Your task to perform on an android device: Open location settings Image 0: 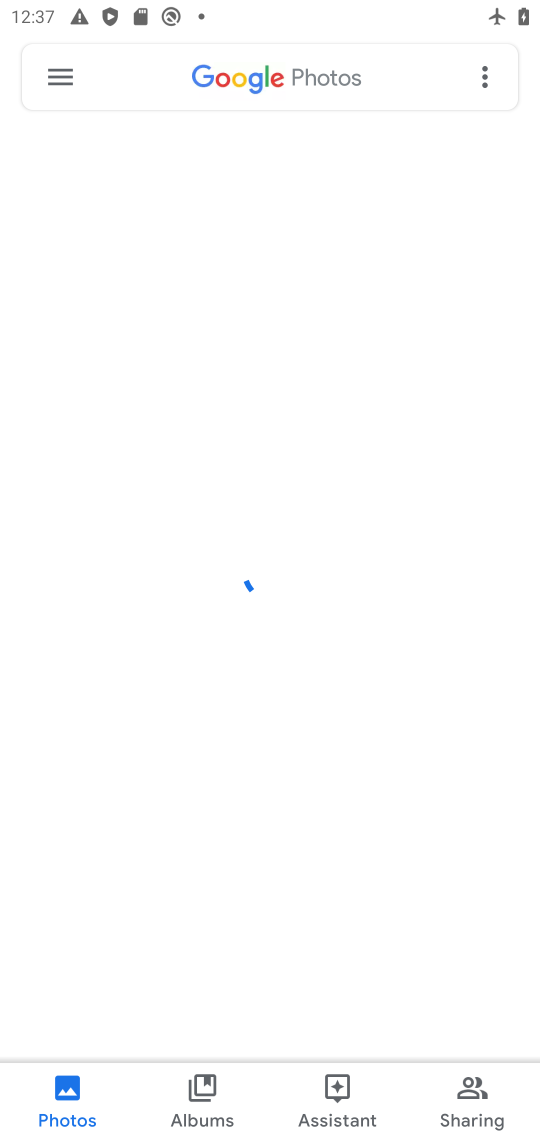
Step 0: press home button
Your task to perform on an android device: Open location settings Image 1: 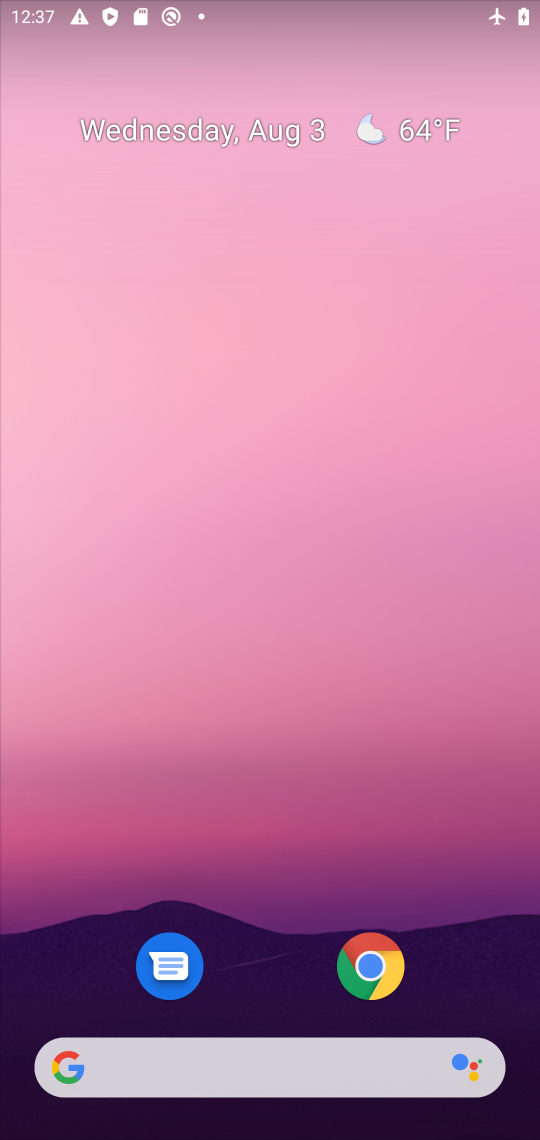
Step 1: drag from (266, 935) to (232, 263)
Your task to perform on an android device: Open location settings Image 2: 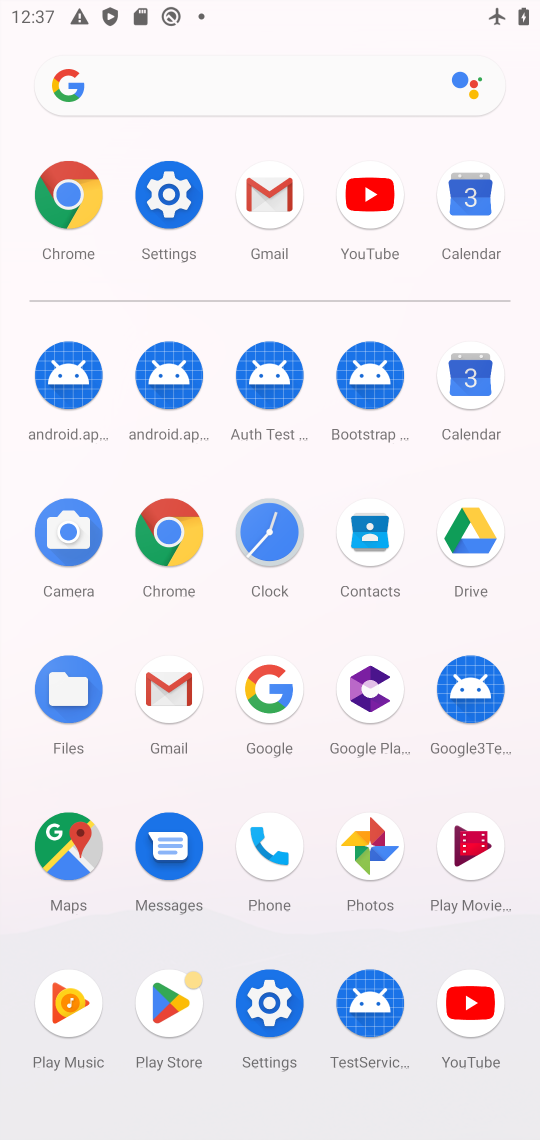
Step 2: click (143, 208)
Your task to perform on an android device: Open location settings Image 3: 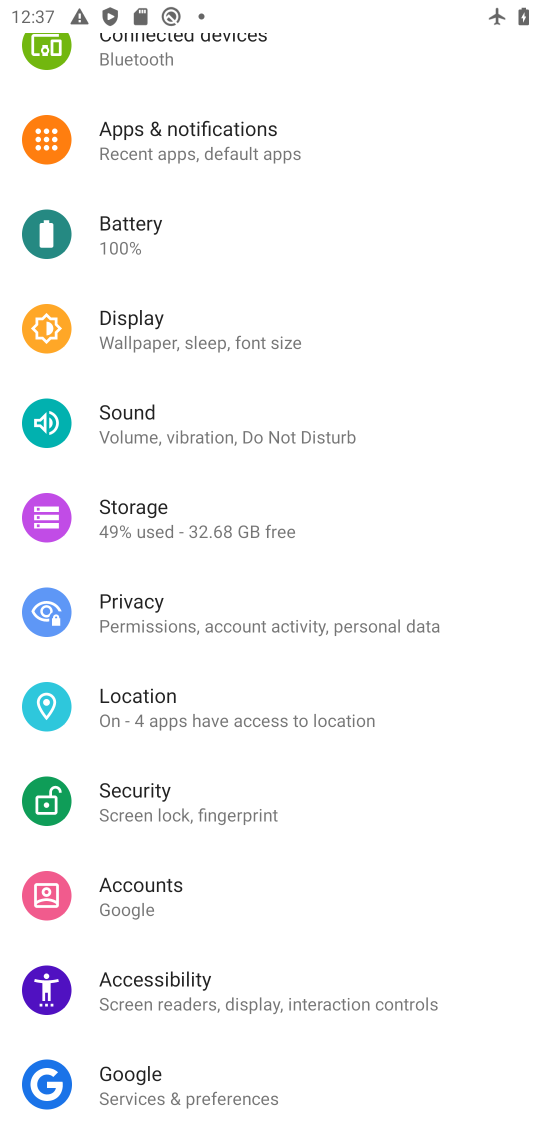
Step 3: click (180, 710)
Your task to perform on an android device: Open location settings Image 4: 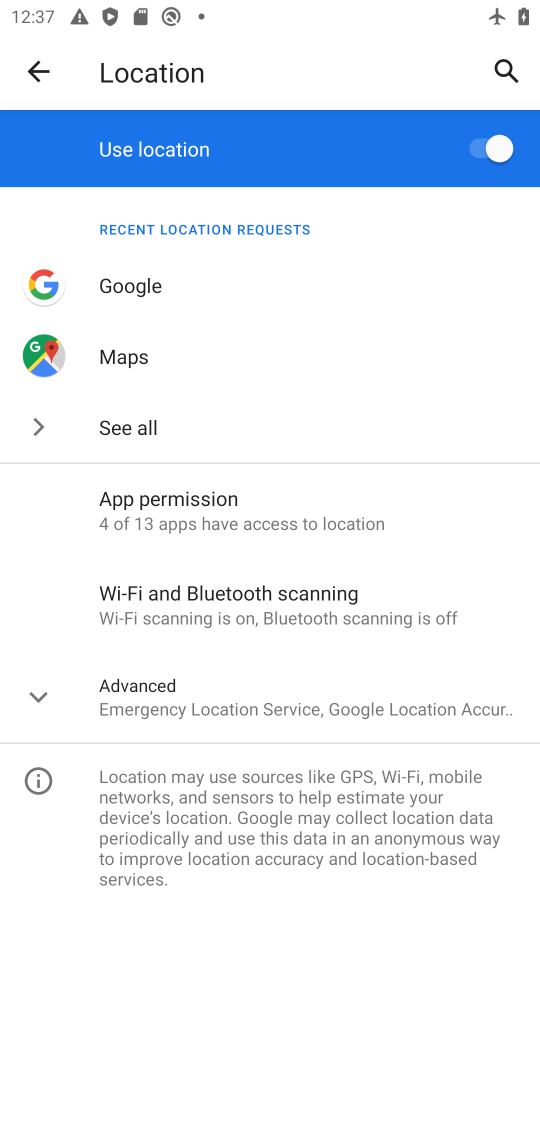
Step 4: task complete